Your task to perform on an android device: change the clock display to digital Image 0: 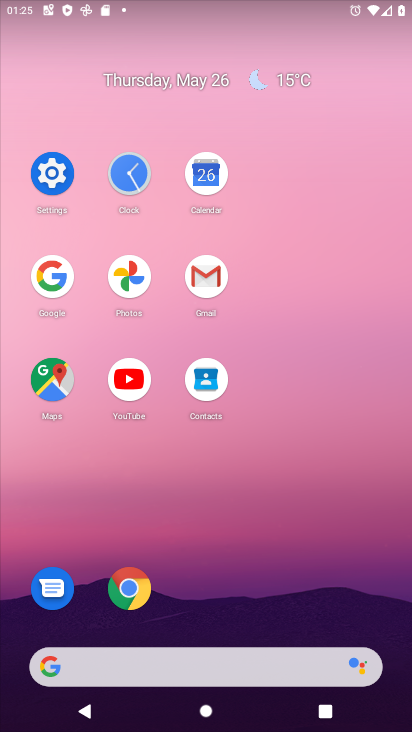
Step 0: click (126, 179)
Your task to perform on an android device: change the clock display to digital Image 1: 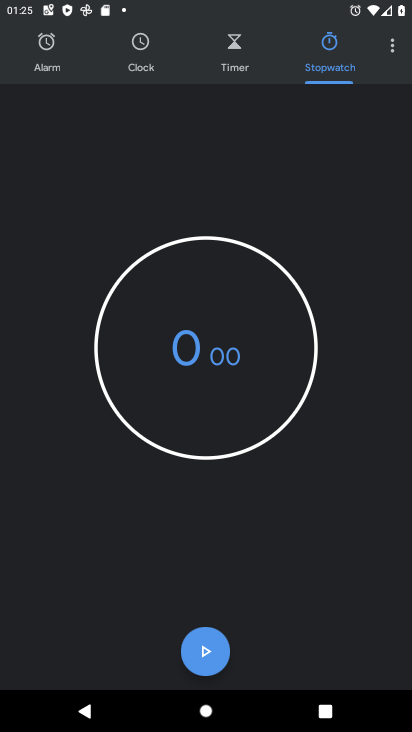
Step 1: click (392, 57)
Your task to perform on an android device: change the clock display to digital Image 2: 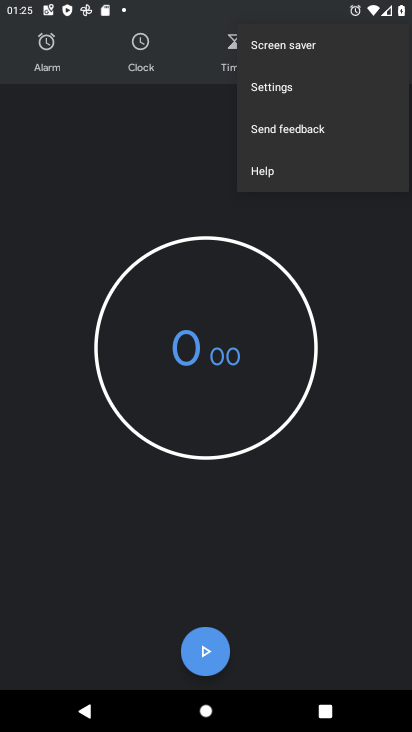
Step 2: click (347, 82)
Your task to perform on an android device: change the clock display to digital Image 3: 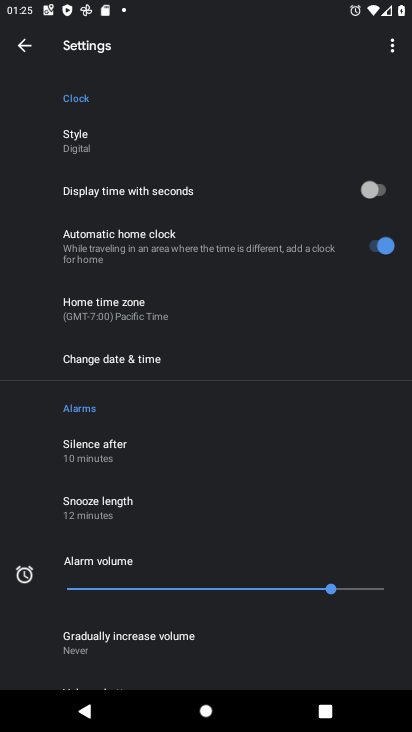
Step 3: task complete